Your task to perform on an android device: What's the weather going to be tomorrow? Image 0: 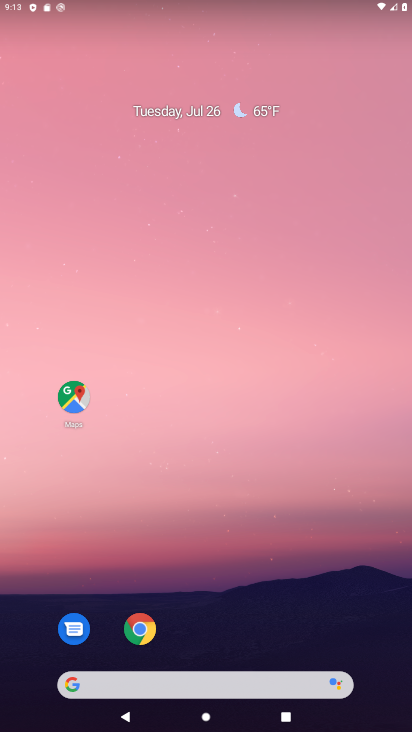
Step 0: drag from (320, 622) to (329, 11)
Your task to perform on an android device: What's the weather going to be tomorrow? Image 1: 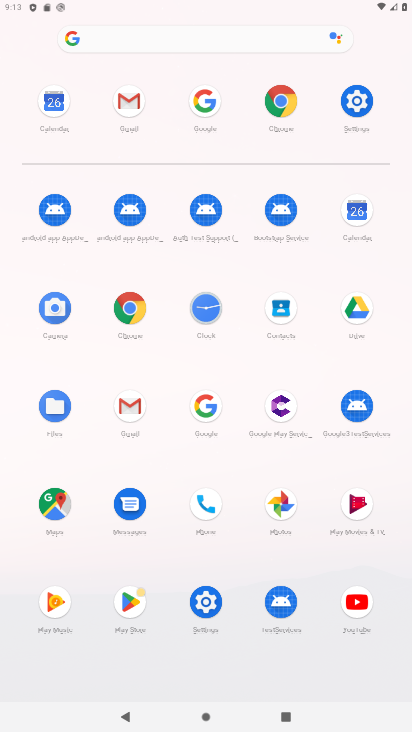
Step 1: click (131, 319)
Your task to perform on an android device: What's the weather going to be tomorrow? Image 2: 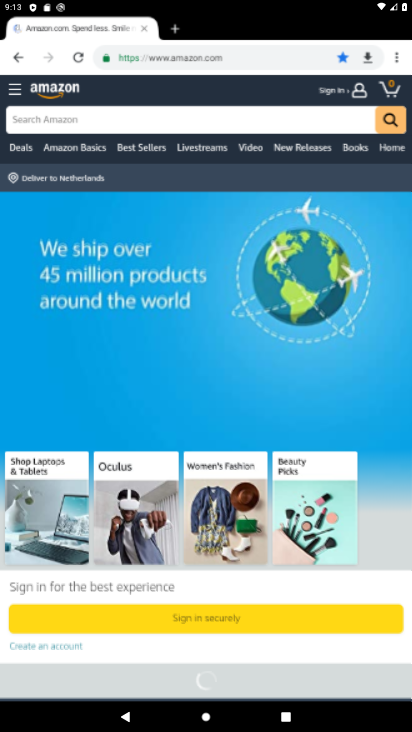
Step 2: click (219, 72)
Your task to perform on an android device: What's the weather going to be tomorrow? Image 3: 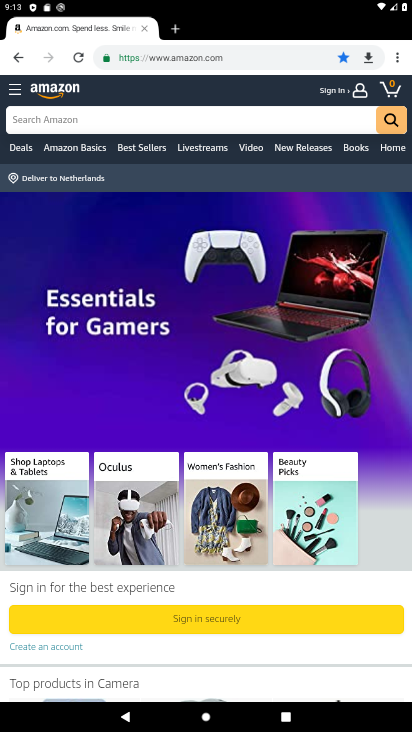
Step 3: click (223, 57)
Your task to perform on an android device: What's the weather going to be tomorrow? Image 4: 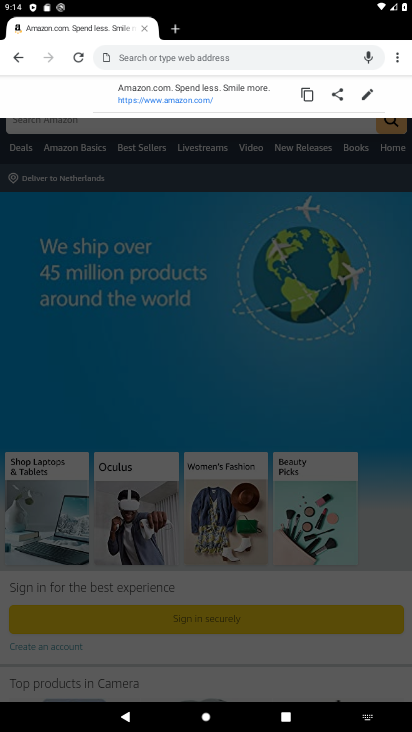
Step 4: type "weather"
Your task to perform on an android device: What's the weather going to be tomorrow? Image 5: 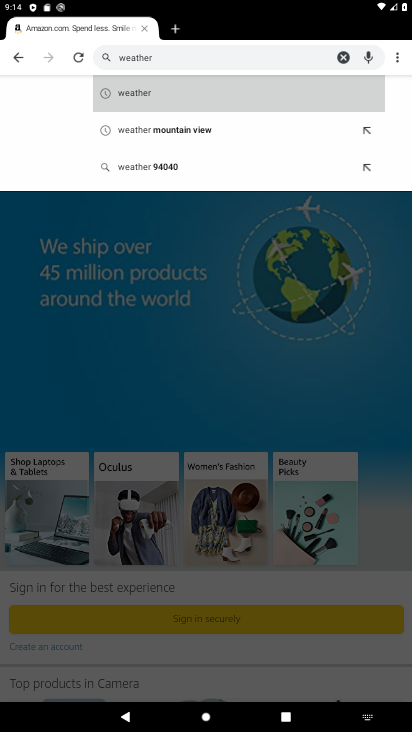
Step 5: click (174, 94)
Your task to perform on an android device: What's the weather going to be tomorrow? Image 6: 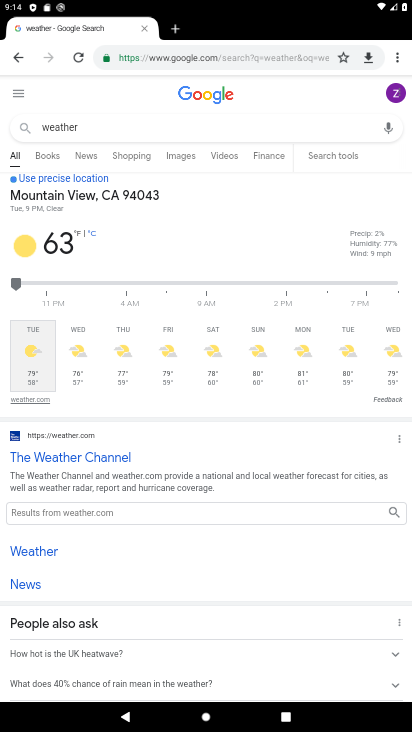
Step 6: click (76, 344)
Your task to perform on an android device: What's the weather going to be tomorrow? Image 7: 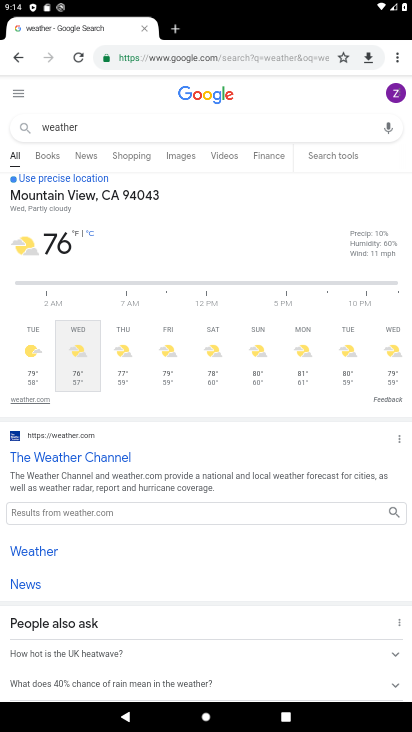
Step 7: task complete